Your task to perform on an android device: Open CNN.com Image 0: 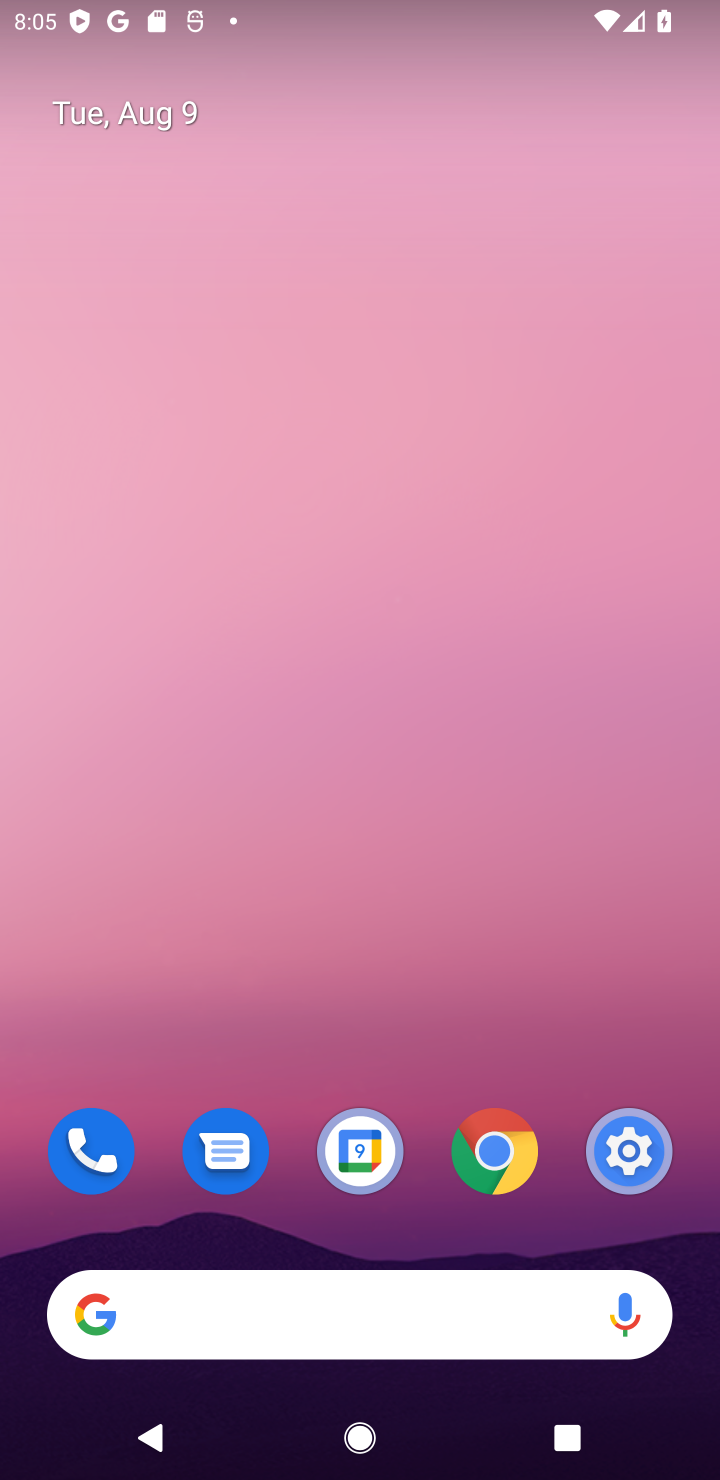
Step 0: click (506, 1144)
Your task to perform on an android device: Open CNN.com Image 1: 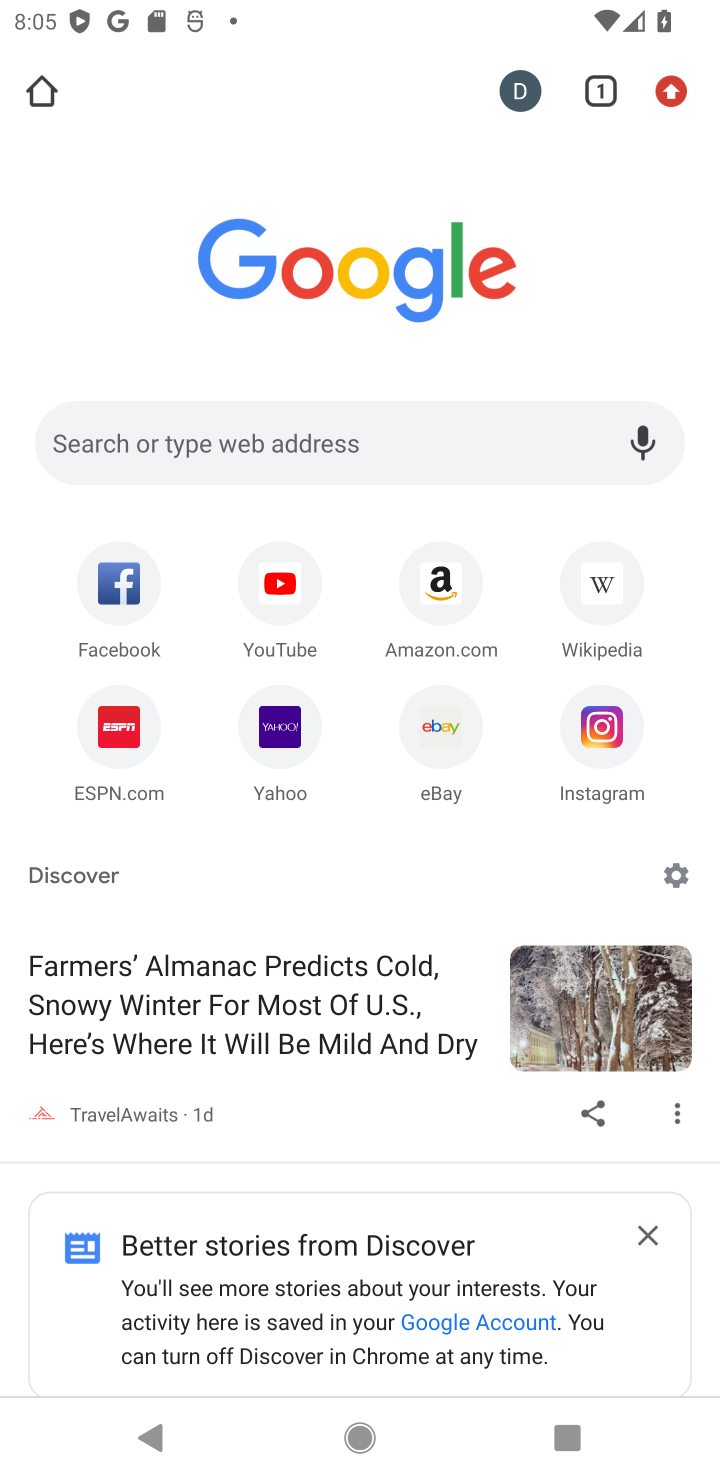
Step 1: click (316, 428)
Your task to perform on an android device: Open CNN.com Image 2: 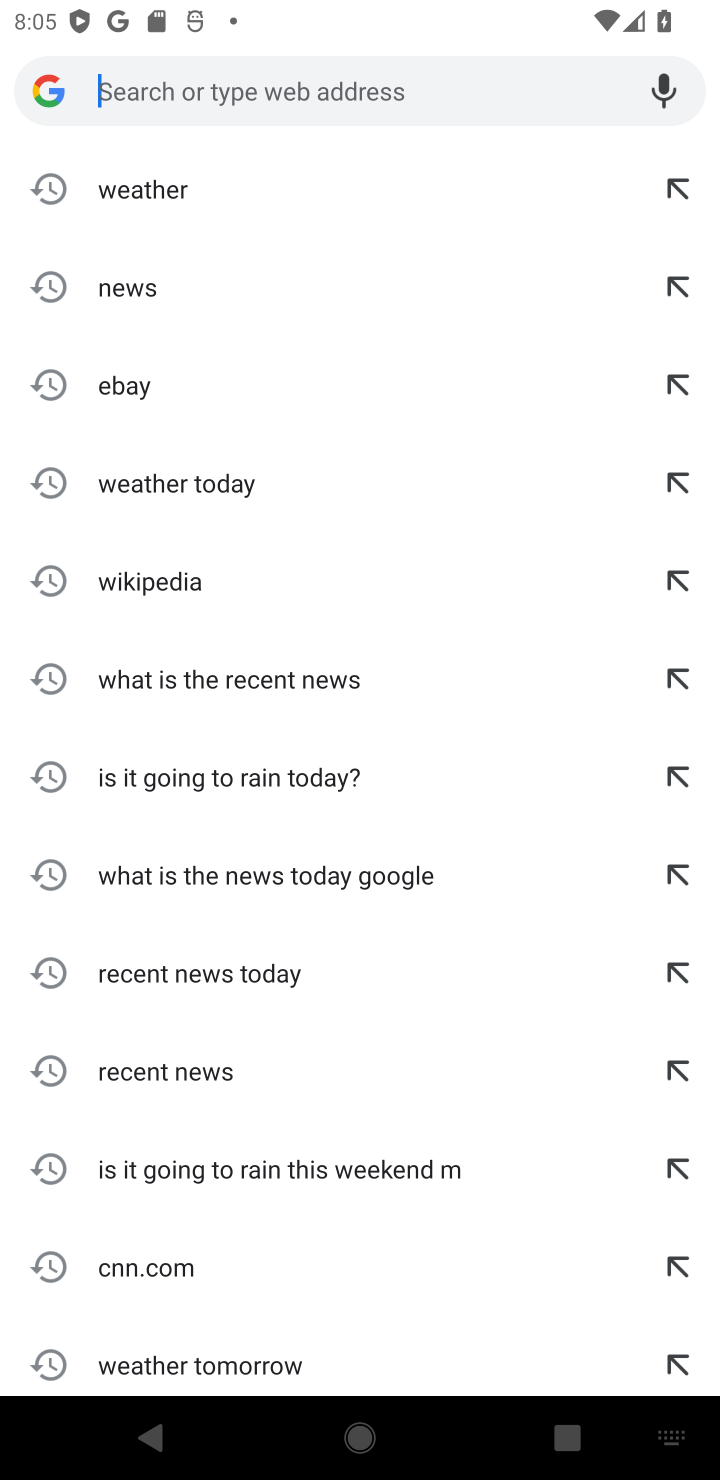
Step 2: click (132, 1263)
Your task to perform on an android device: Open CNN.com Image 3: 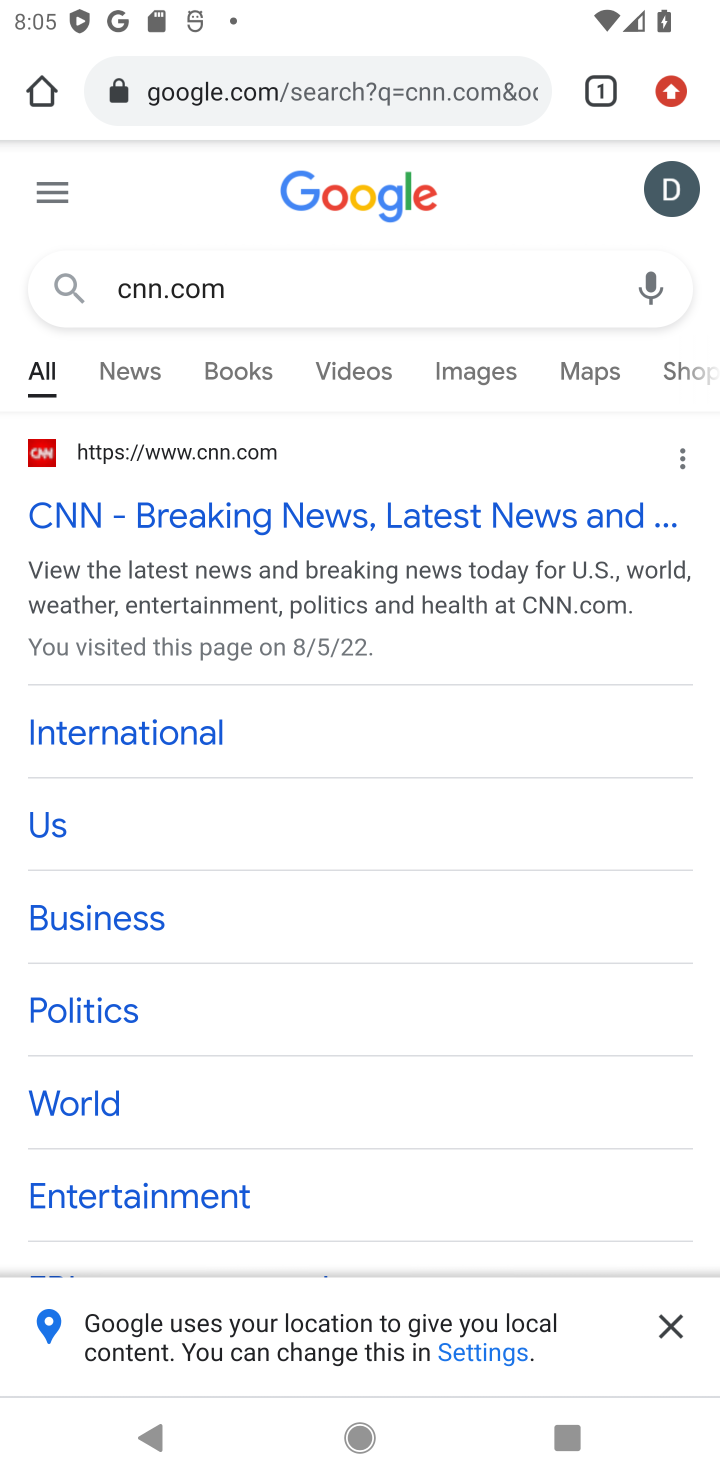
Step 3: click (68, 516)
Your task to perform on an android device: Open CNN.com Image 4: 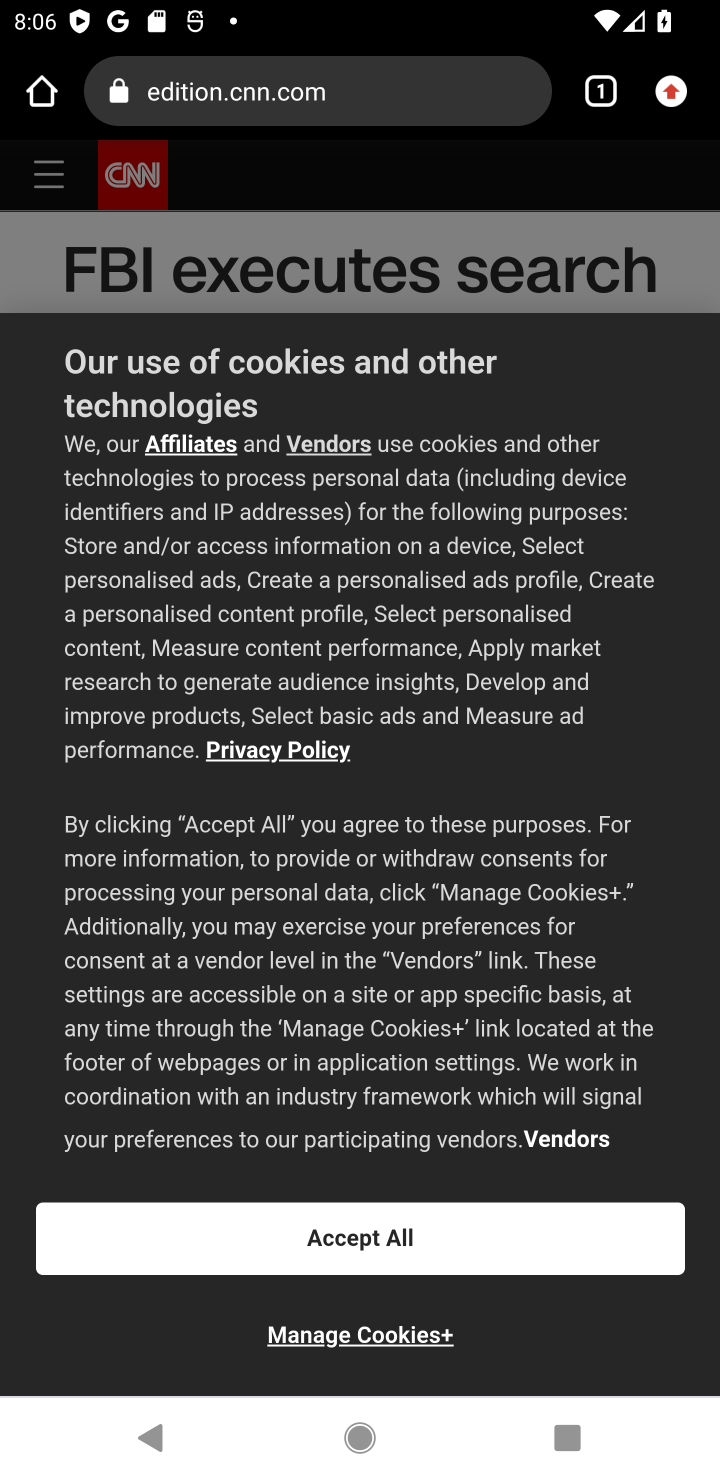
Step 4: click (194, 1233)
Your task to perform on an android device: Open CNN.com Image 5: 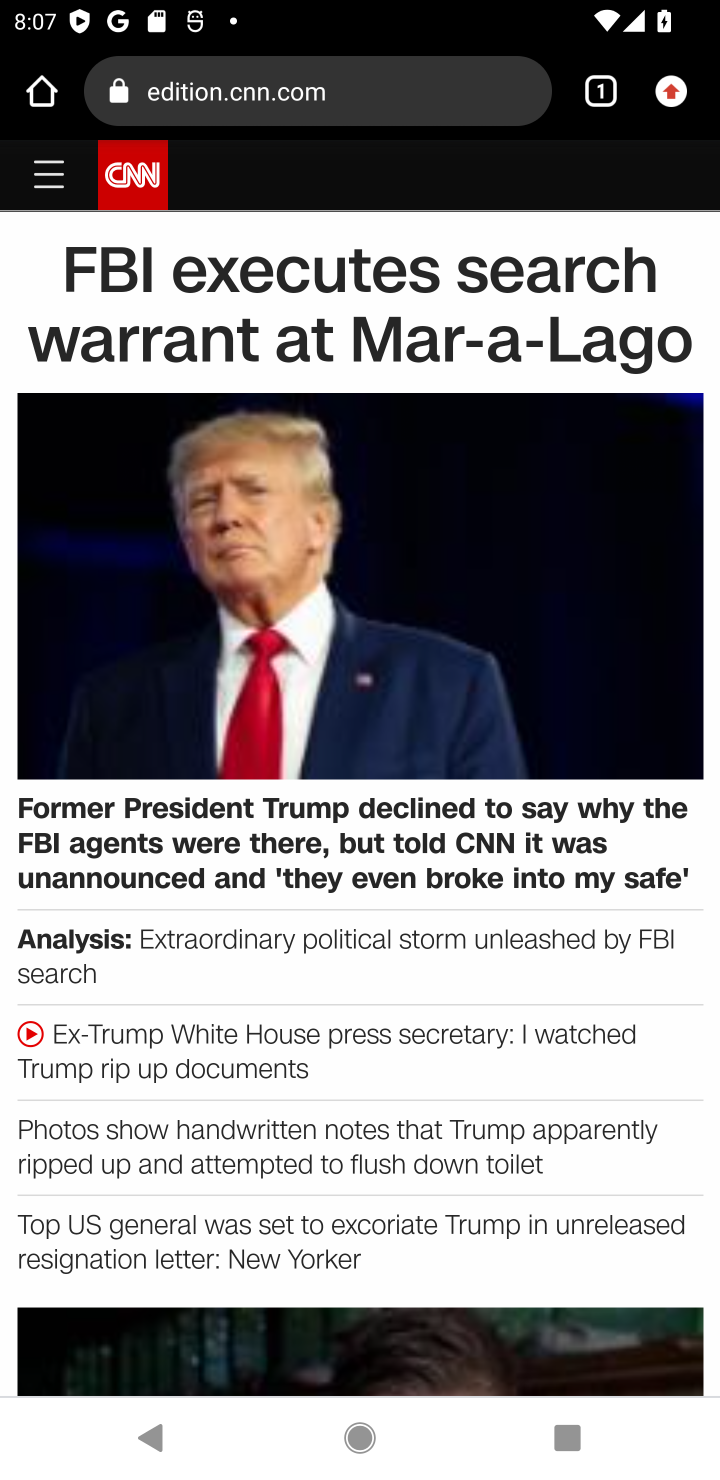
Step 5: task complete